Your task to perform on an android device: Turn on the flashlight Image 0: 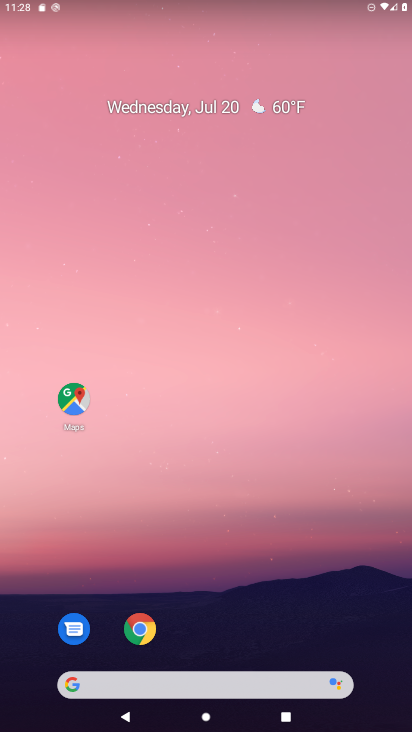
Step 0: drag from (223, 625) to (222, 161)
Your task to perform on an android device: Turn on the flashlight Image 1: 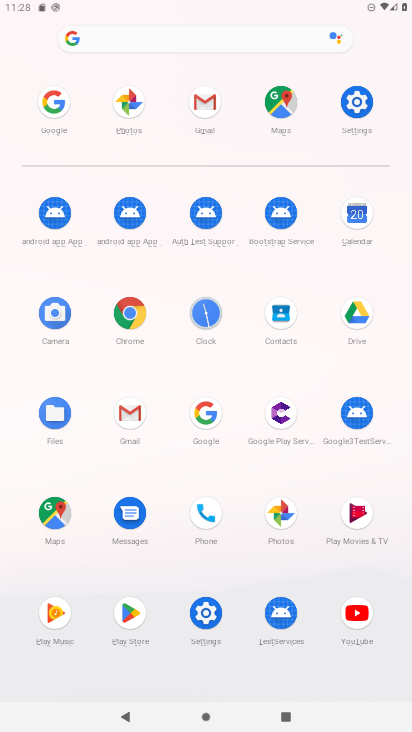
Step 1: click (346, 100)
Your task to perform on an android device: Turn on the flashlight Image 2: 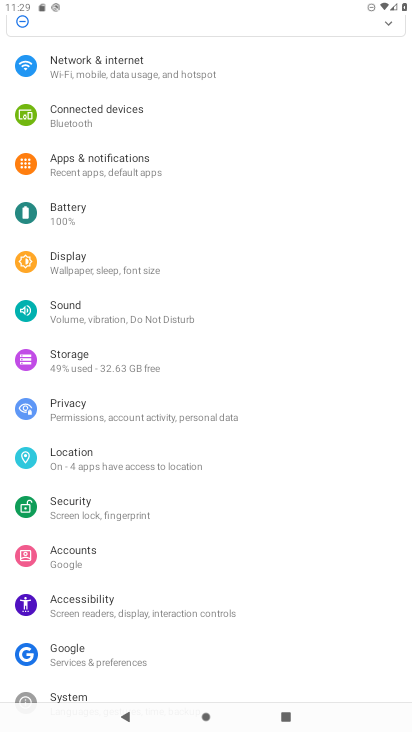
Step 2: task complete